Your task to perform on an android device: allow cookies in the chrome app Image 0: 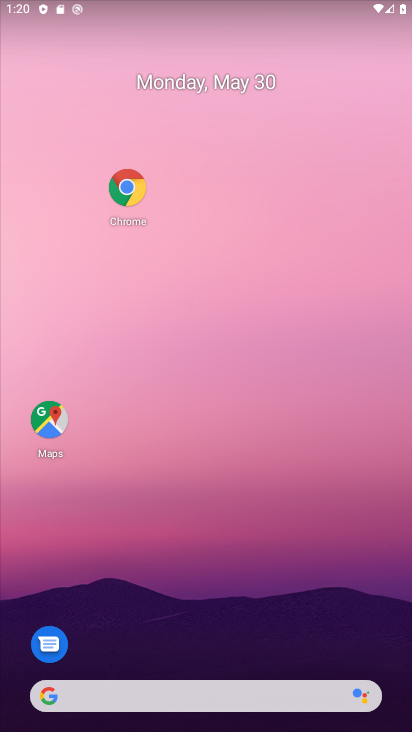
Step 0: click (121, 183)
Your task to perform on an android device: allow cookies in the chrome app Image 1: 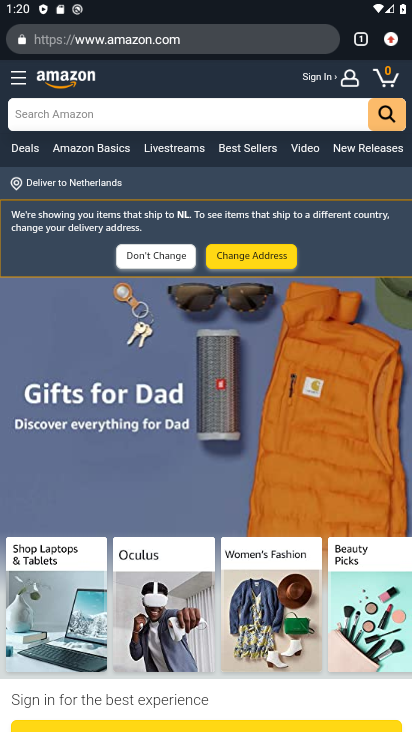
Step 1: click (388, 44)
Your task to perform on an android device: allow cookies in the chrome app Image 2: 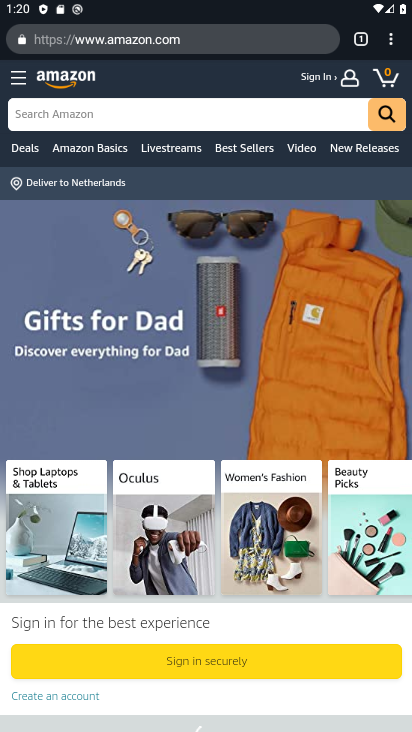
Step 2: click (394, 42)
Your task to perform on an android device: allow cookies in the chrome app Image 3: 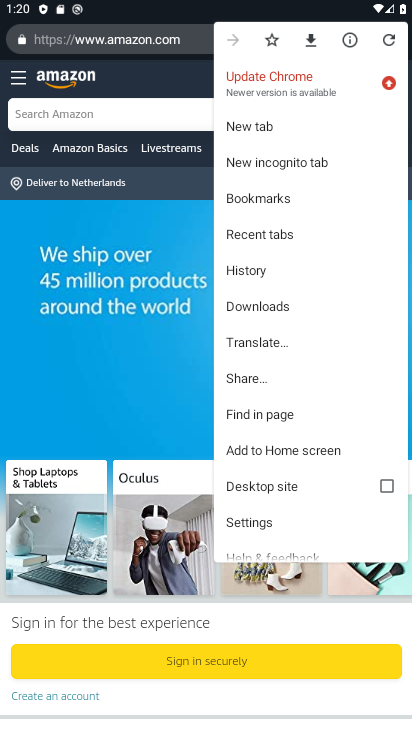
Step 3: click (230, 511)
Your task to perform on an android device: allow cookies in the chrome app Image 4: 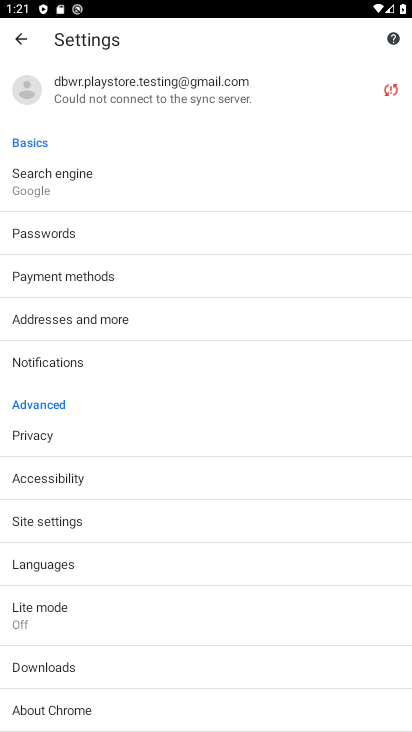
Step 4: click (56, 526)
Your task to perform on an android device: allow cookies in the chrome app Image 5: 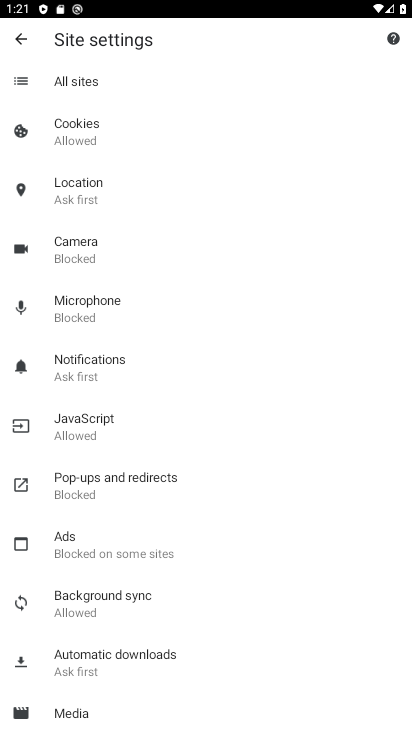
Step 5: click (142, 134)
Your task to perform on an android device: allow cookies in the chrome app Image 6: 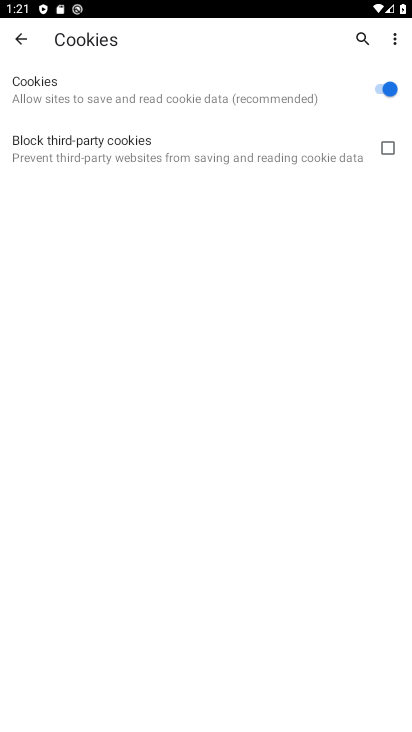
Step 6: task complete